Your task to perform on an android device: View the shopping cart on newegg. Search for "macbook" on newegg, select the first entry, add it to the cart, then select checkout. Image 0: 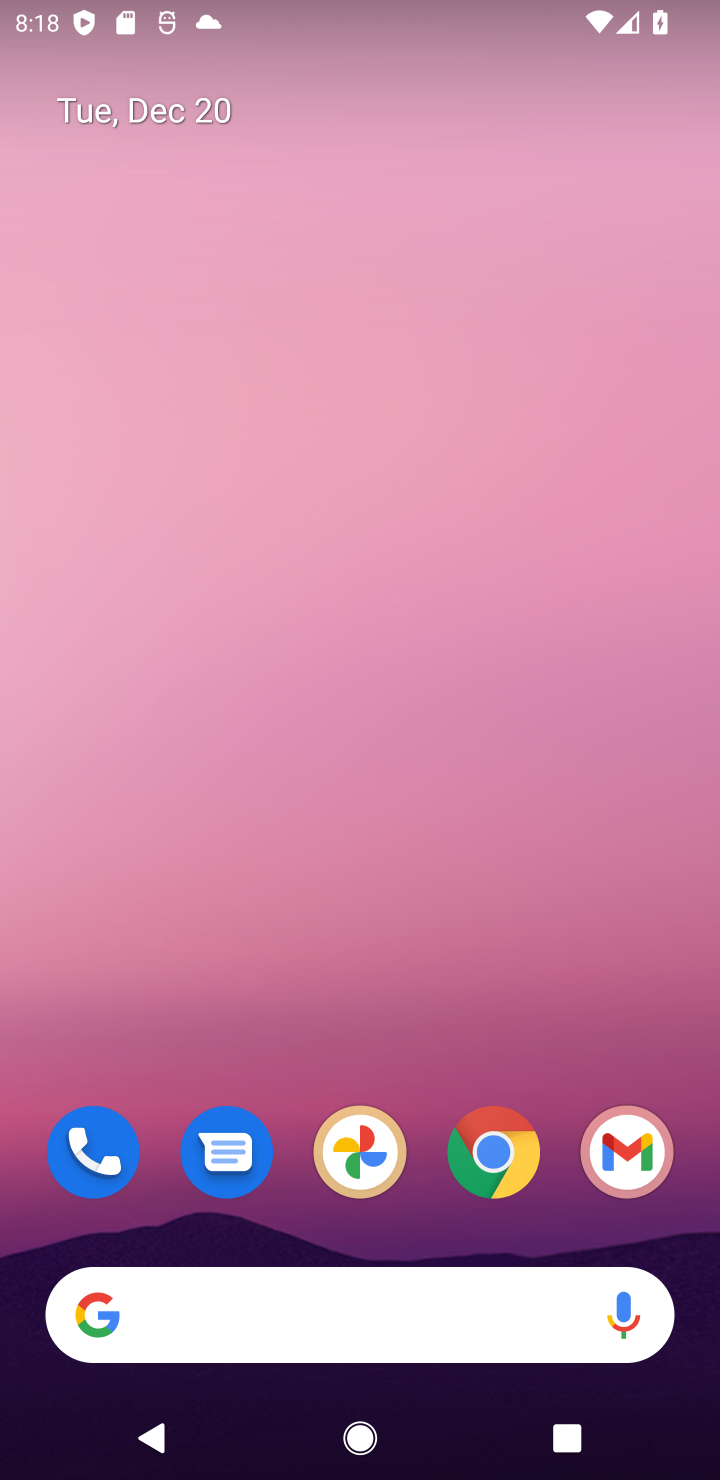
Step 0: click (500, 1143)
Your task to perform on an android device: View the shopping cart on newegg. Search for "macbook" on newegg, select the first entry, add it to the cart, then select checkout. Image 1: 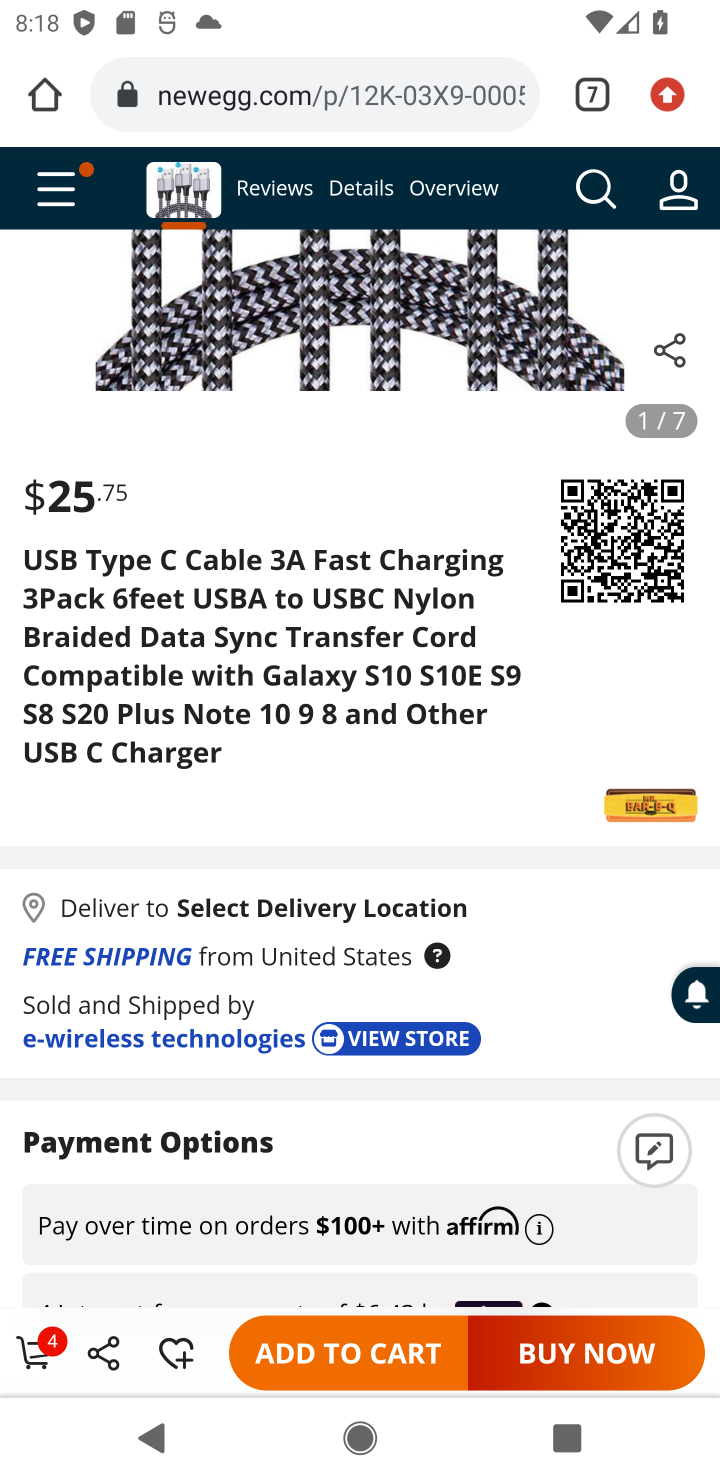
Step 1: click (48, 1333)
Your task to perform on an android device: View the shopping cart on newegg. Search for "macbook" on newegg, select the first entry, add it to the cart, then select checkout. Image 2: 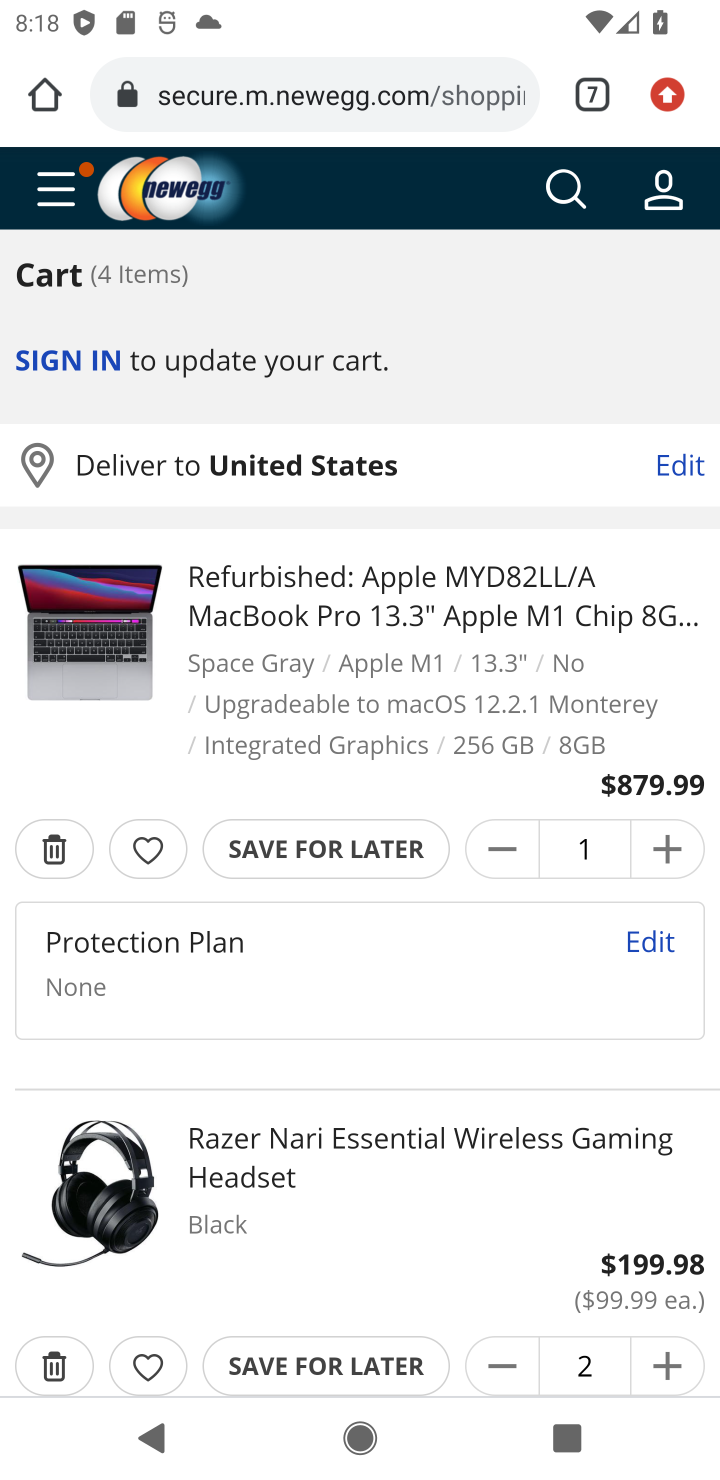
Step 2: click (562, 176)
Your task to perform on an android device: View the shopping cart on newegg. Search for "macbook" on newegg, select the first entry, add it to the cart, then select checkout. Image 3: 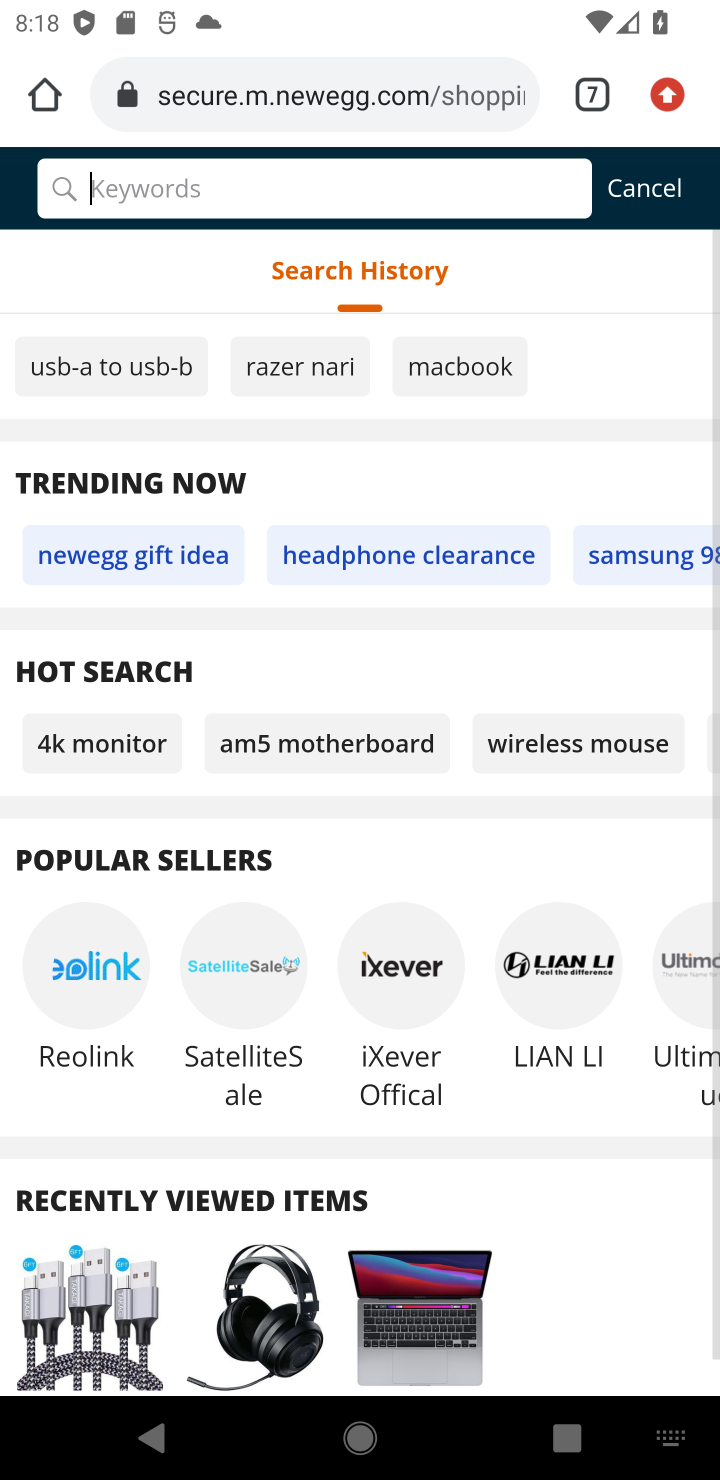
Step 3: type "macbook"
Your task to perform on an android device: View the shopping cart on newegg. Search for "macbook" on newegg, select the first entry, add it to the cart, then select checkout. Image 4: 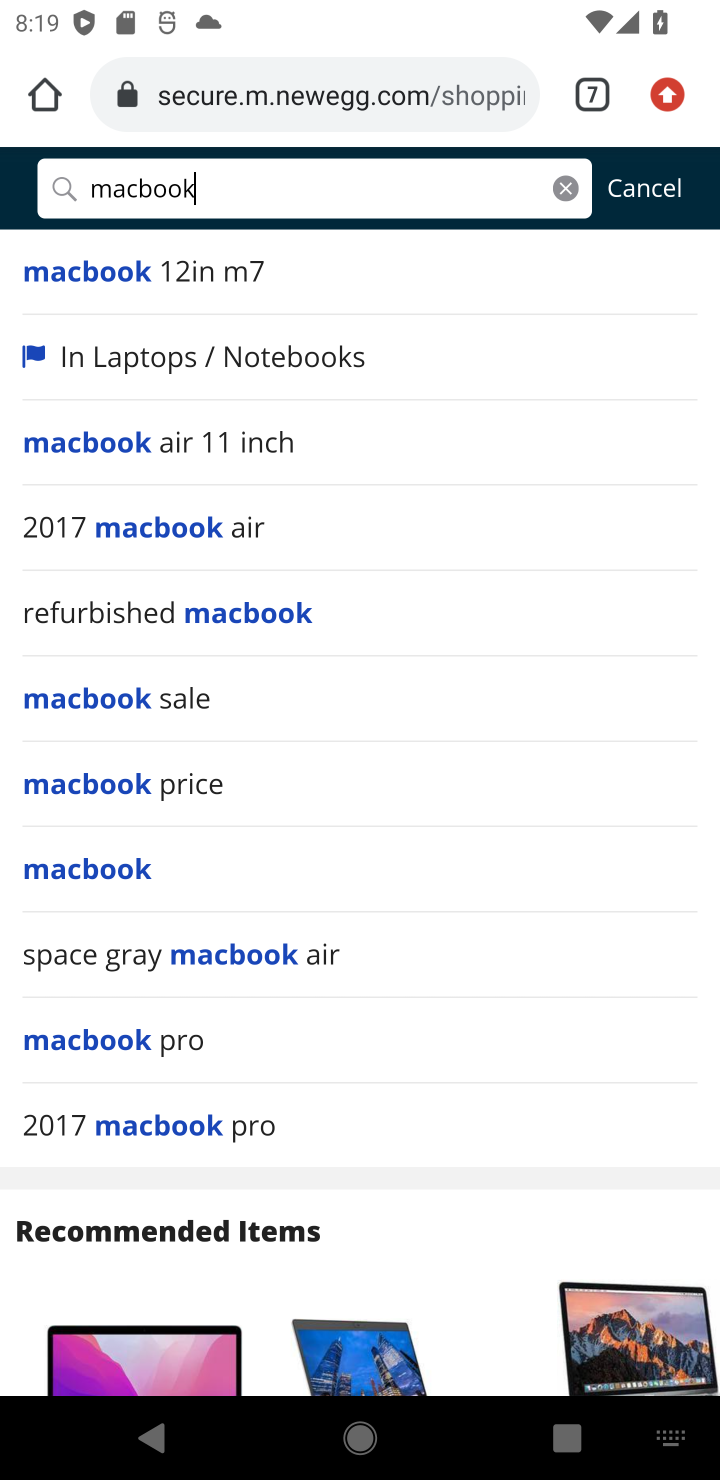
Step 4: click (84, 866)
Your task to perform on an android device: View the shopping cart on newegg. Search for "macbook" on newegg, select the first entry, add it to the cart, then select checkout. Image 5: 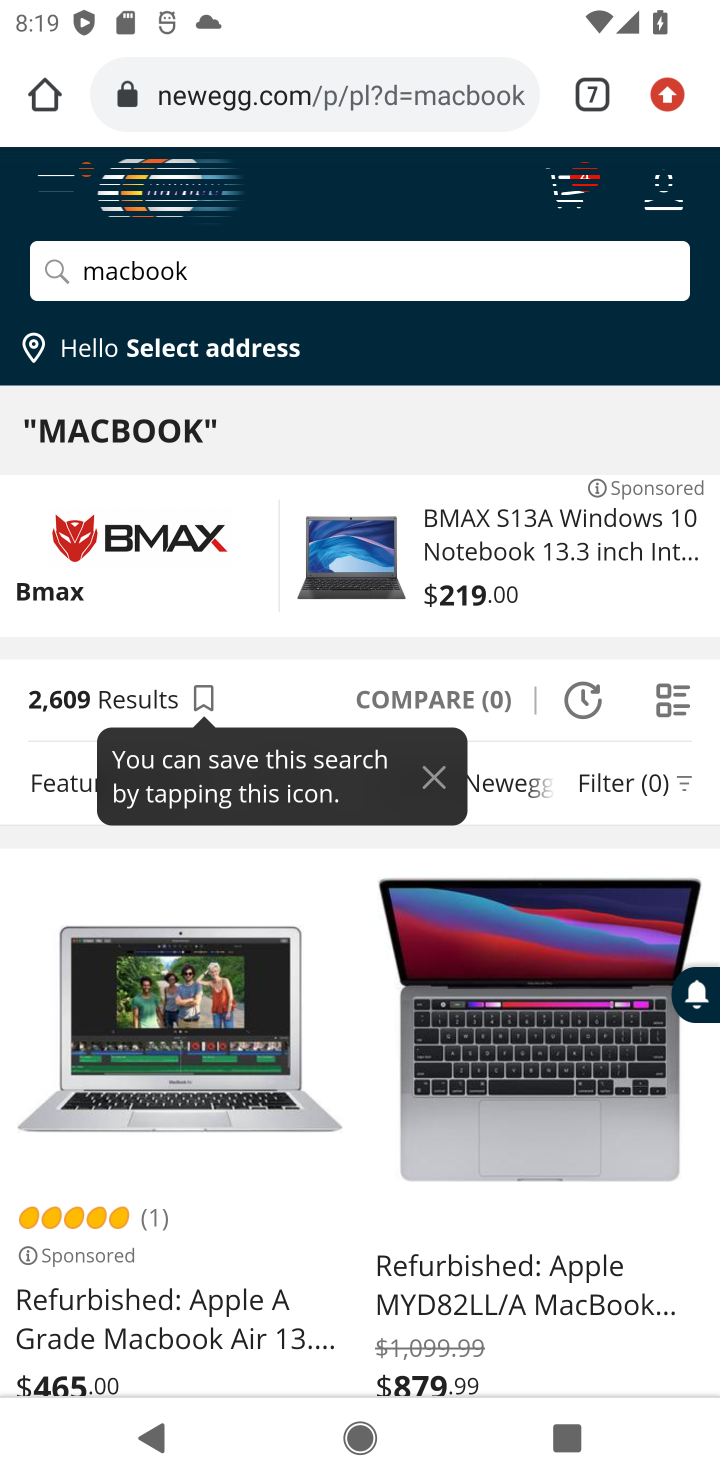
Step 5: click (428, 1302)
Your task to perform on an android device: View the shopping cart on newegg. Search for "macbook" on newegg, select the first entry, add it to the cart, then select checkout. Image 6: 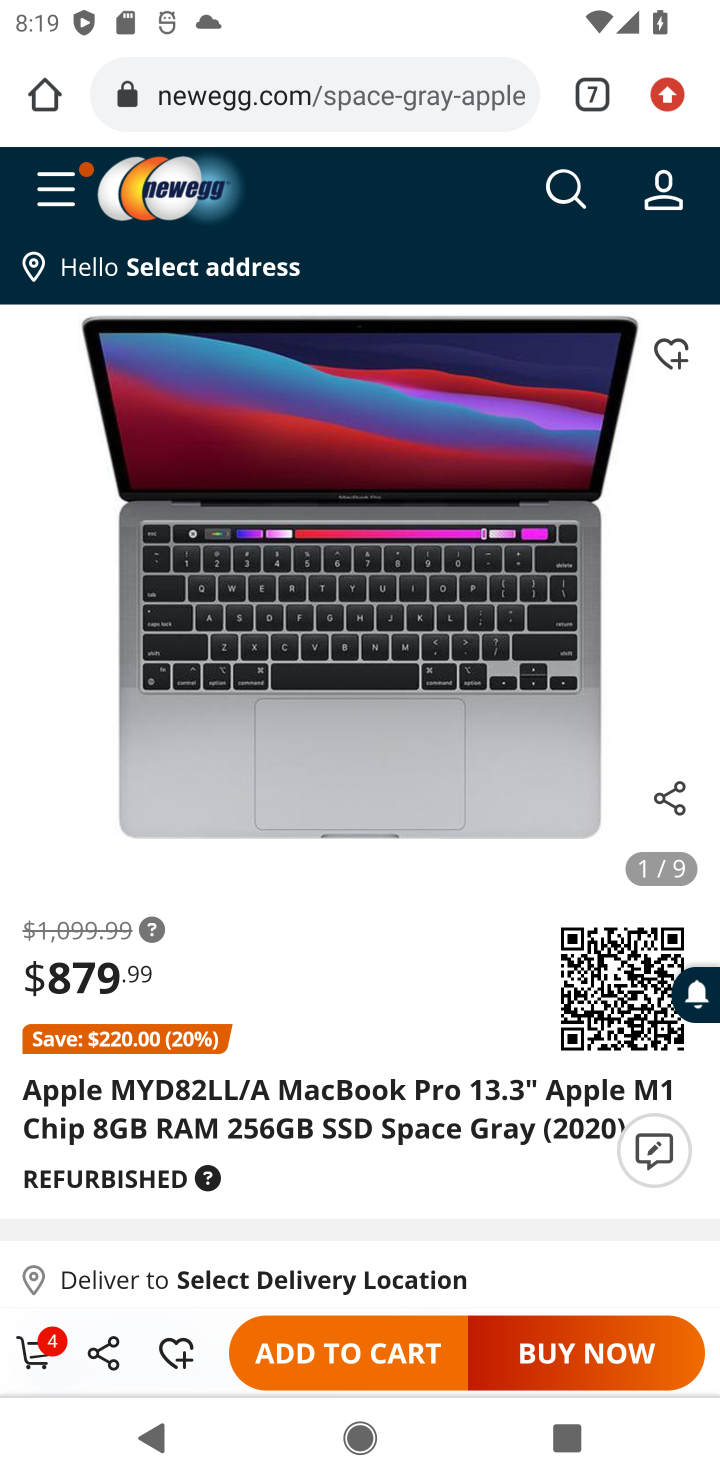
Step 6: click (370, 1336)
Your task to perform on an android device: View the shopping cart on newegg. Search for "macbook" on newegg, select the first entry, add it to the cart, then select checkout. Image 7: 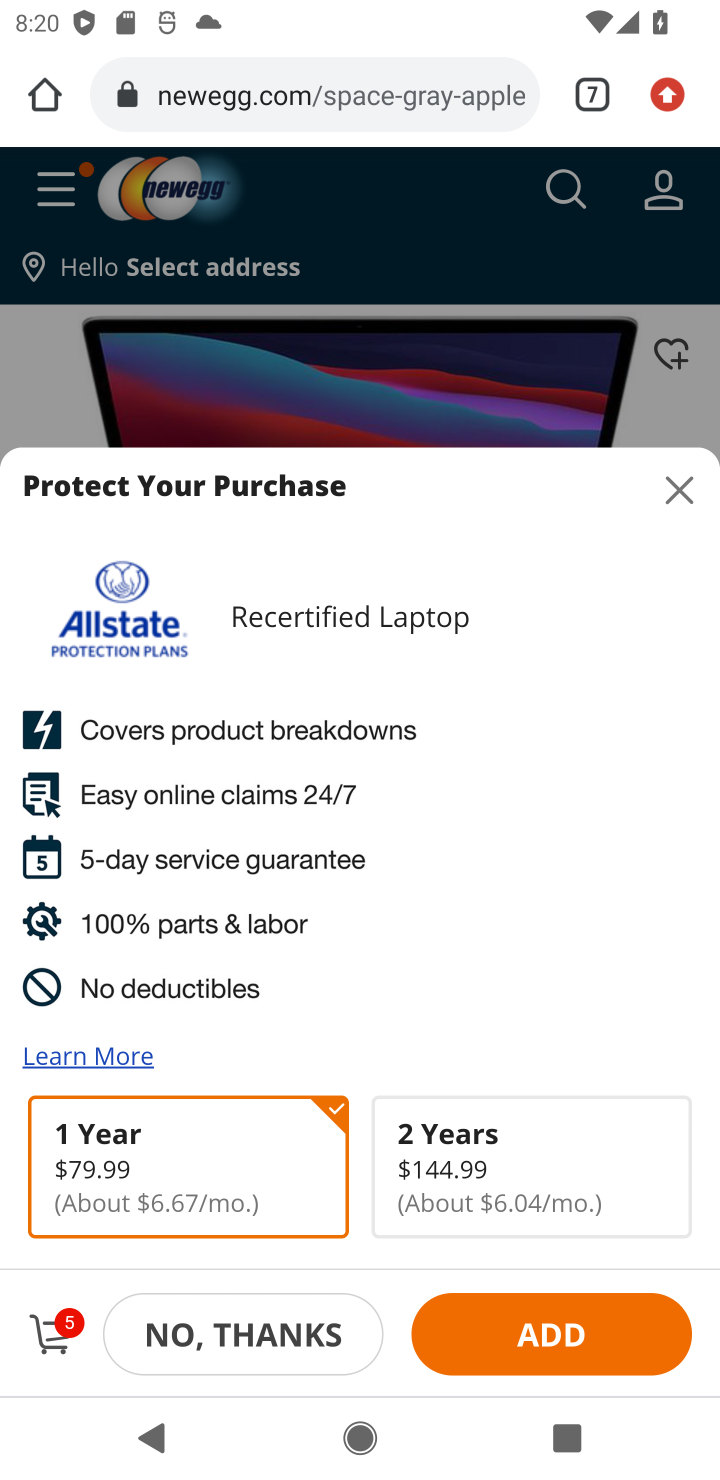
Step 7: task complete